Your task to perform on an android device: find which apps use the phone's location Image 0: 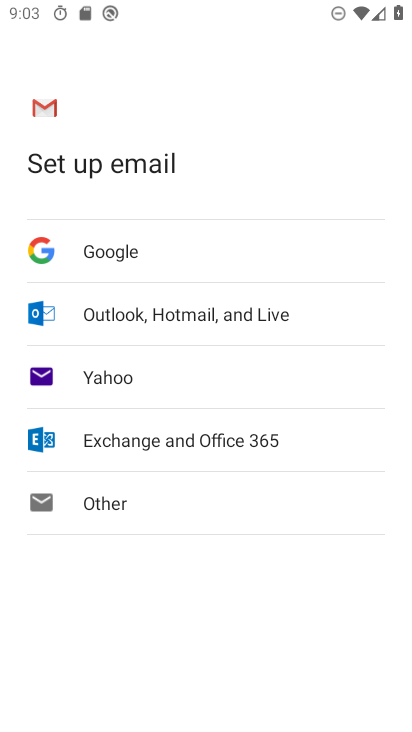
Step 0: press home button
Your task to perform on an android device: find which apps use the phone's location Image 1: 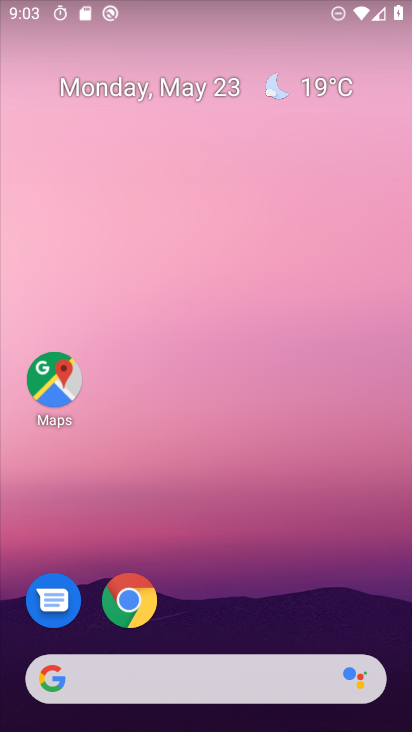
Step 1: drag from (30, 618) to (266, 115)
Your task to perform on an android device: find which apps use the phone's location Image 2: 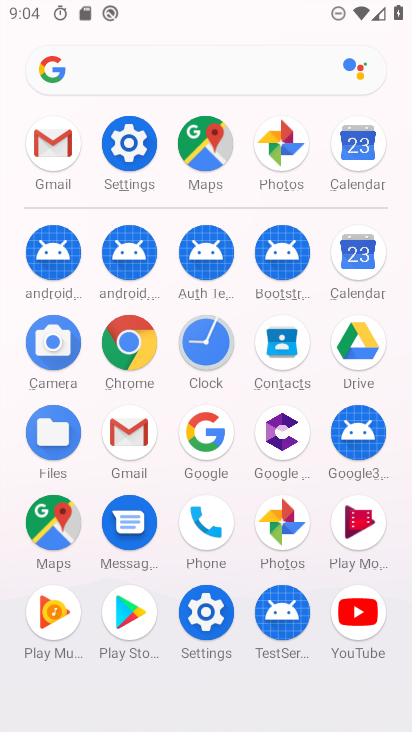
Step 2: click (128, 139)
Your task to perform on an android device: find which apps use the phone's location Image 3: 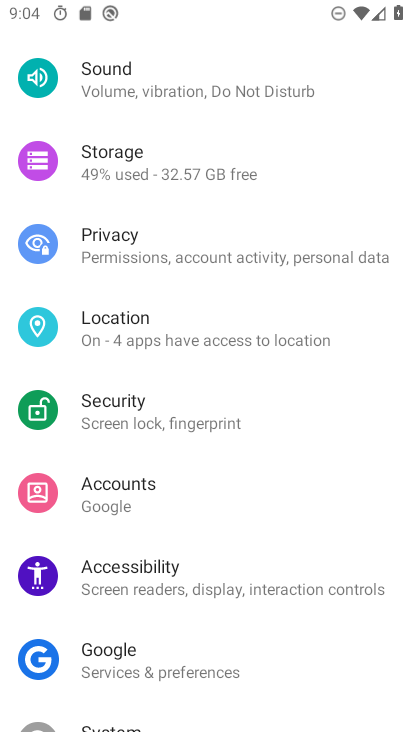
Step 3: drag from (215, 153) to (217, 555)
Your task to perform on an android device: find which apps use the phone's location Image 4: 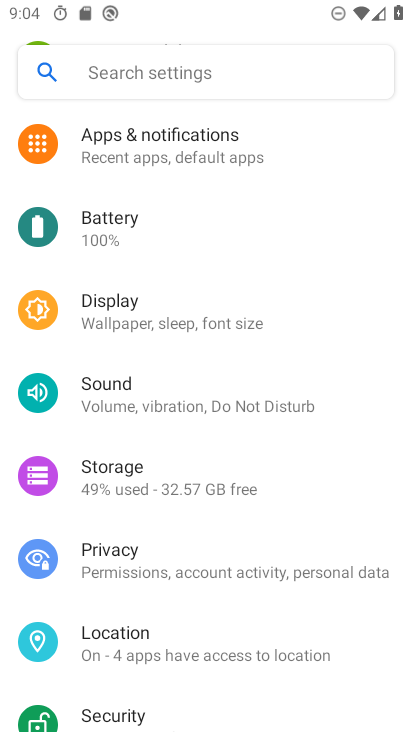
Step 4: press home button
Your task to perform on an android device: find which apps use the phone's location Image 5: 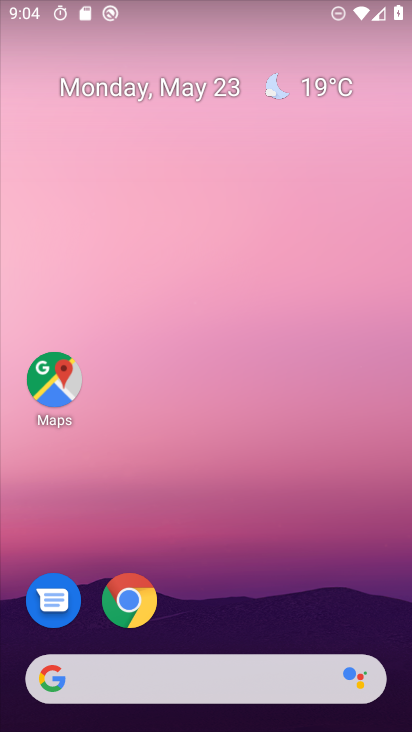
Step 5: drag from (29, 588) to (231, 121)
Your task to perform on an android device: find which apps use the phone's location Image 6: 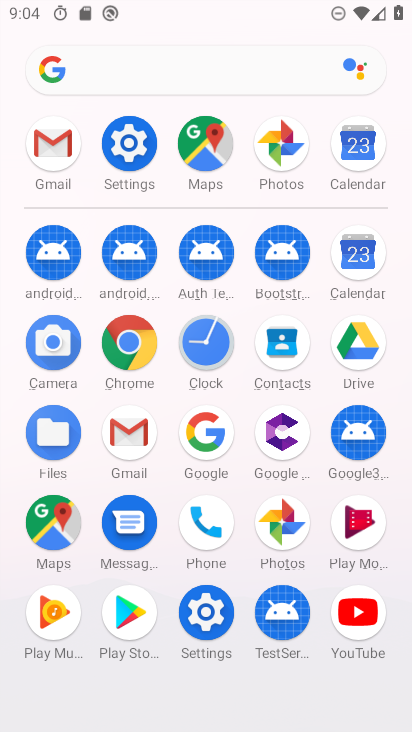
Step 6: click (111, 146)
Your task to perform on an android device: find which apps use the phone's location Image 7: 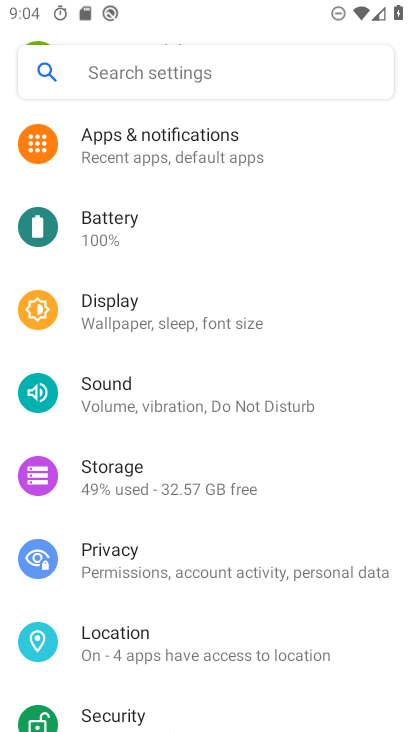
Step 7: click (161, 641)
Your task to perform on an android device: find which apps use the phone's location Image 8: 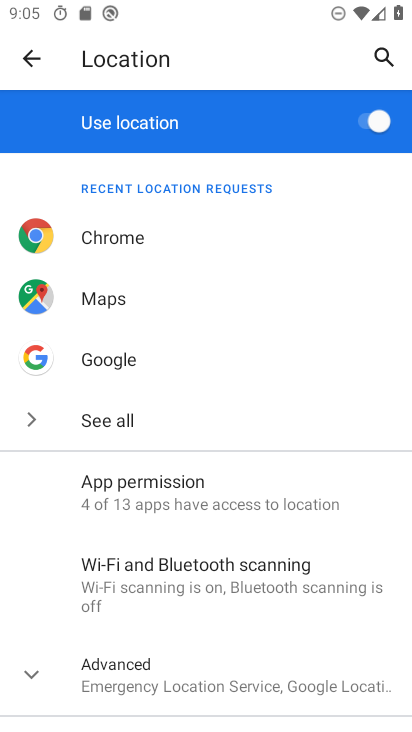
Step 8: click (288, 689)
Your task to perform on an android device: find which apps use the phone's location Image 9: 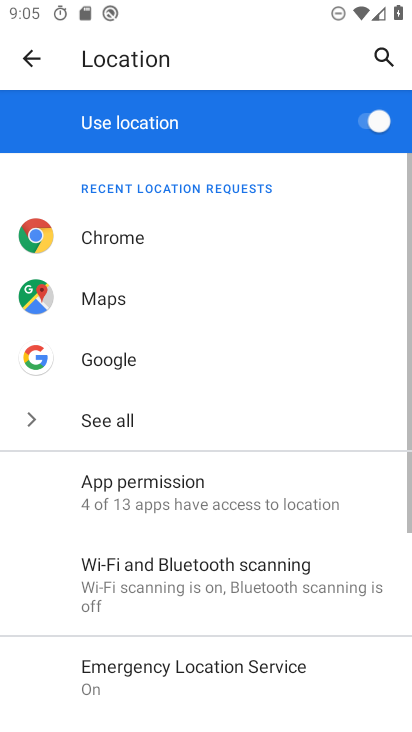
Step 9: drag from (9, 539) to (199, 198)
Your task to perform on an android device: find which apps use the phone's location Image 10: 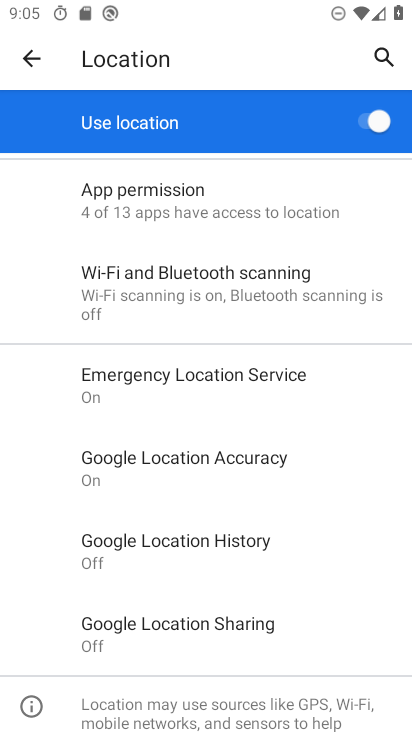
Step 10: click (260, 542)
Your task to perform on an android device: find which apps use the phone's location Image 11: 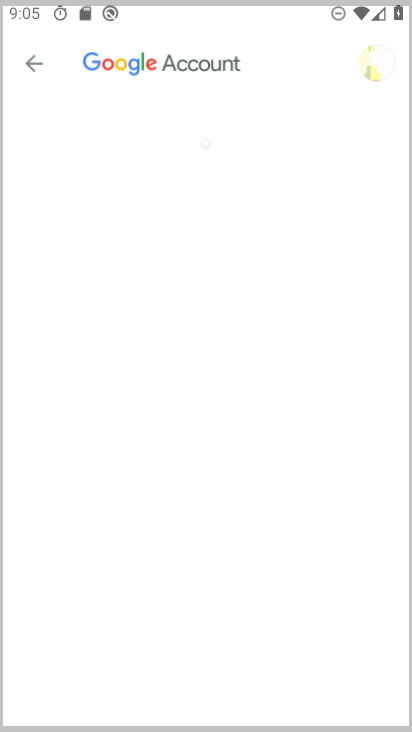
Step 11: task complete